Your task to perform on an android device: Open settings Image 0: 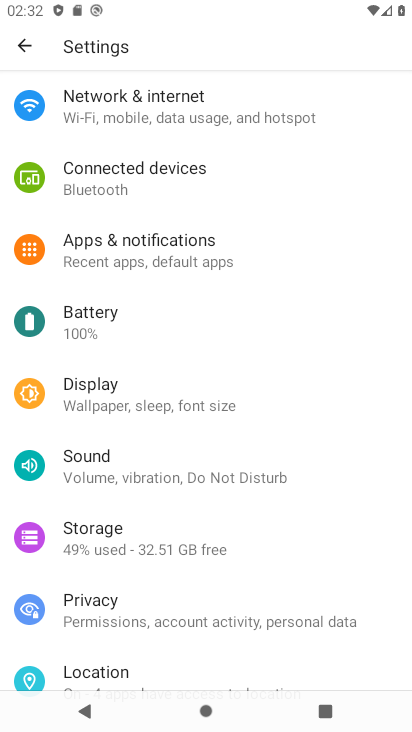
Step 0: press home button
Your task to perform on an android device: Open settings Image 1: 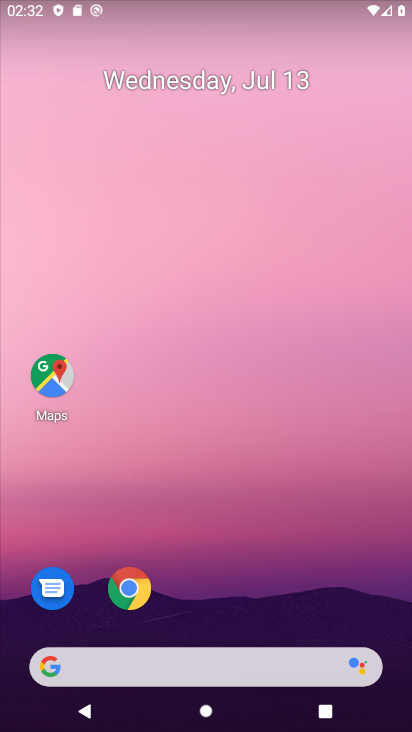
Step 1: drag from (132, 606) to (160, 176)
Your task to perform on an android device: Open settings Image 2: 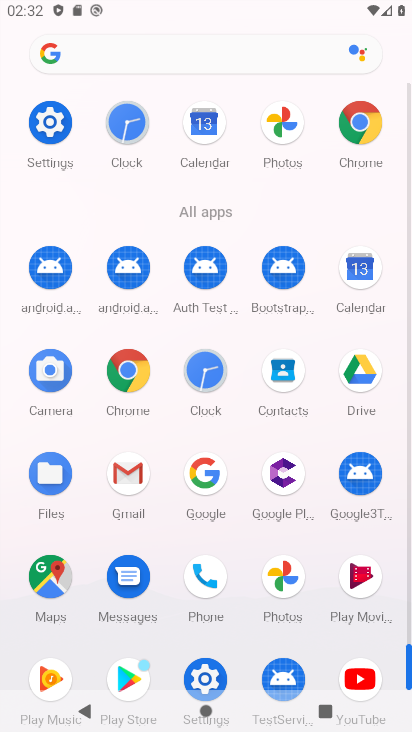
Step 2: click (49, 132)
Your task to perform on an android device: Open settings Image 3: 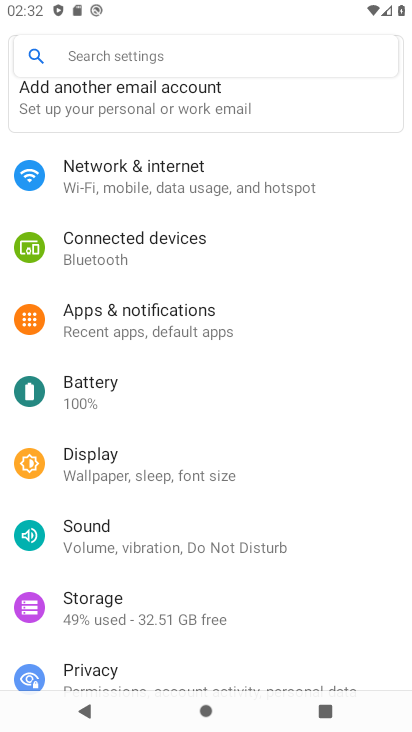
Step 3: task complete